Your task to perform on an android device: Open Wikipedia Image 0: 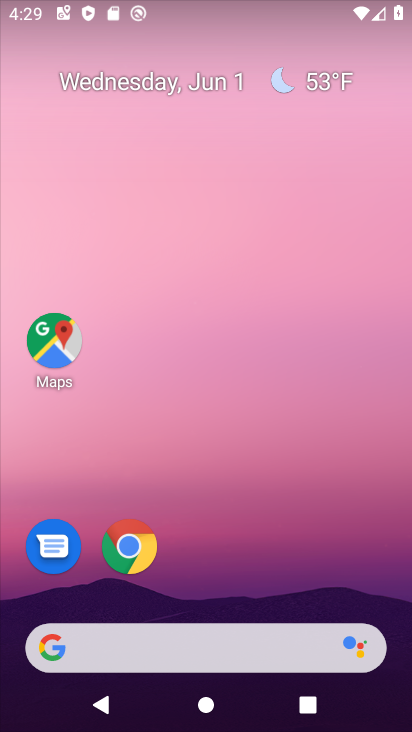
Step 0: click (131, 545)
Your task to perform on an android device: Open Wikipedia Image 1: 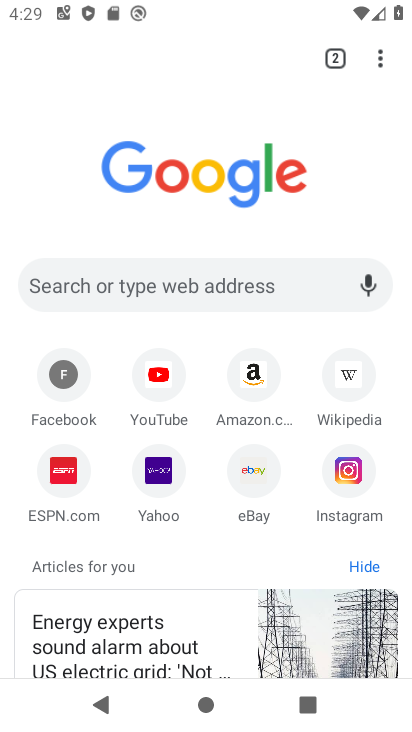
Step 1: click (129, 543)
Your task to perform on an android device: Open Wikipedia Image 2: 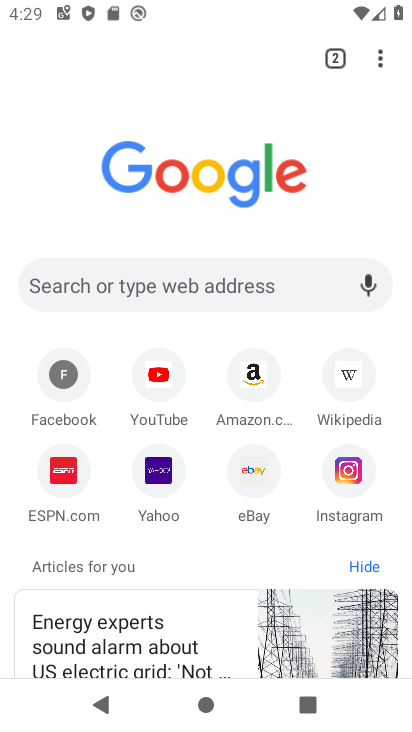
Step 2: click (346, 385)
Your task to perform on an android device: Open Wikipedia Image 3: 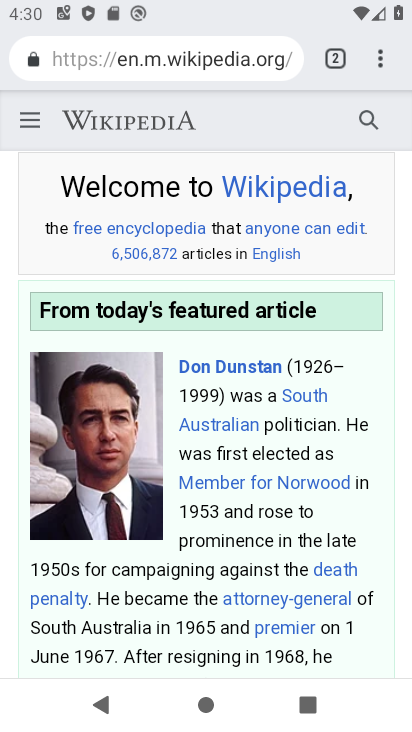
Step 3: task complete